Your task to perform on an android device: change keyboard looks Image 0: 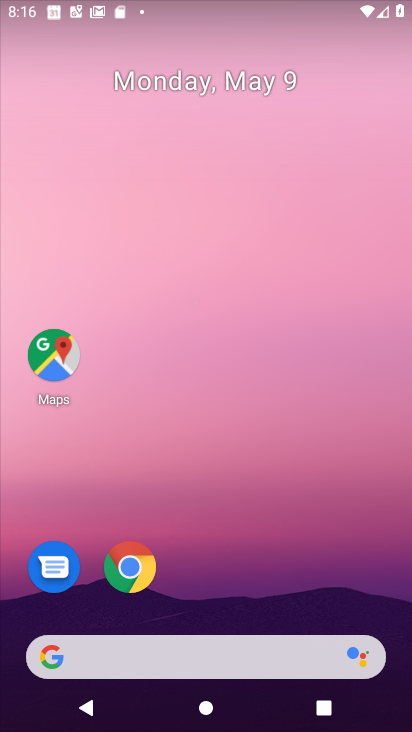
Step 0: click (375, 609)
Your task to perform on an android device: change keyboard looks Image 1: 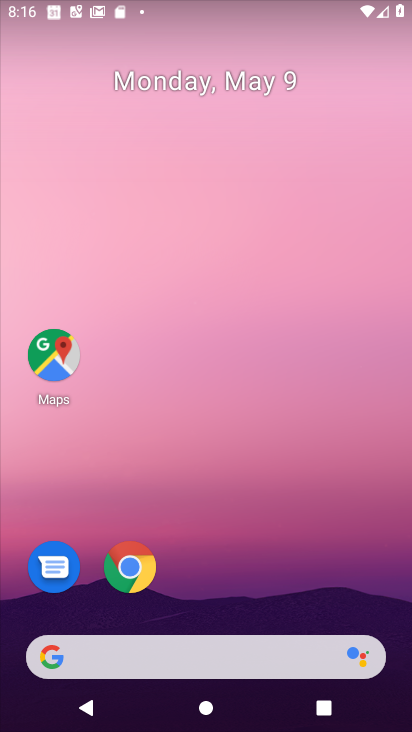
Step 1: drag from (238, 383) to (286, 183)
Your task to perform on an android device: change keyboard looks Image 2: 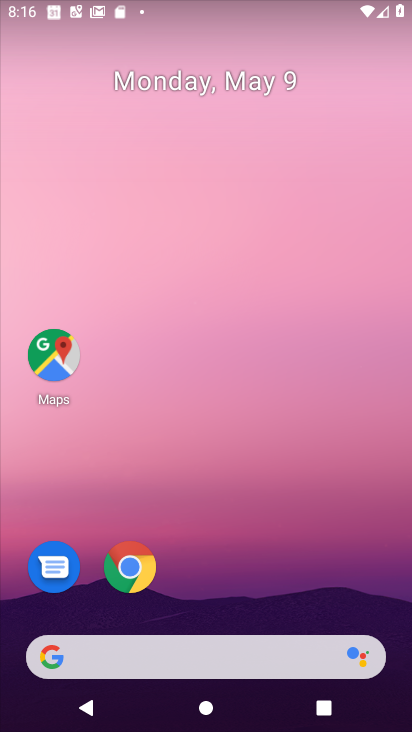
Step 2: click (399, 164)
Your task to perform on an android device: change keyboard looks Image 3: 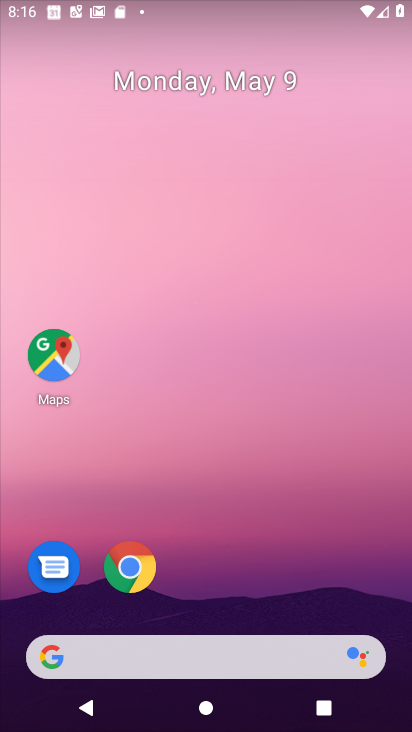
Step 3: drag from (217, 515) to (320, 116)
Your task to perform on an android device: change keyboard looks Image 4: 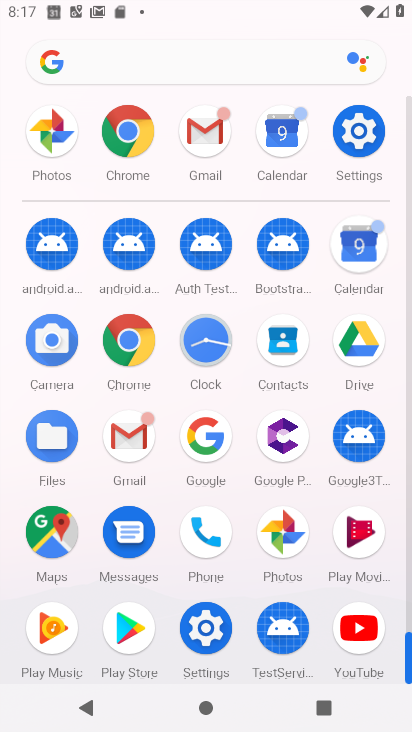
Step 4: drag from (210, 528) to (407, 72)
Your task to perform on an android device: change keyboard looks Image 5: 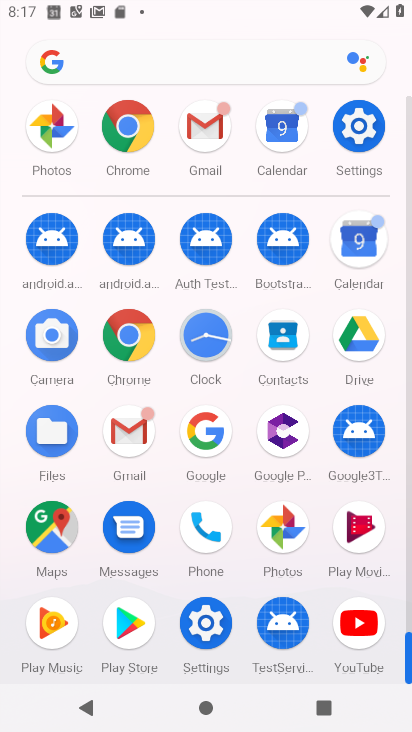
Step 5: click (222, 618)
Your task to perform on an android device: change keyboard looks Image 6: 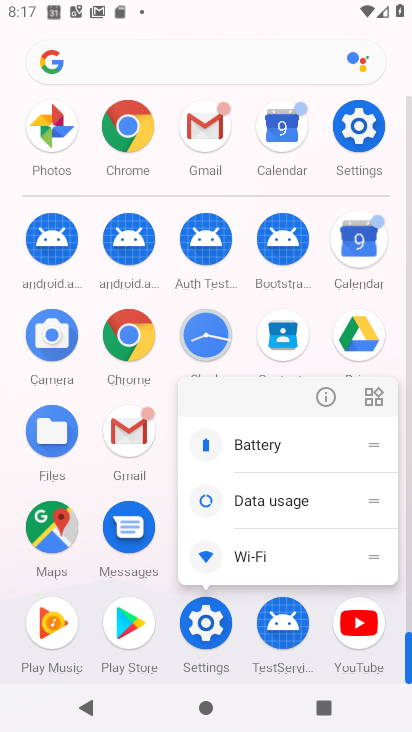
Step 6: click (323, 409)
Your task to perform on an android device: change keyboard looks Image 7: 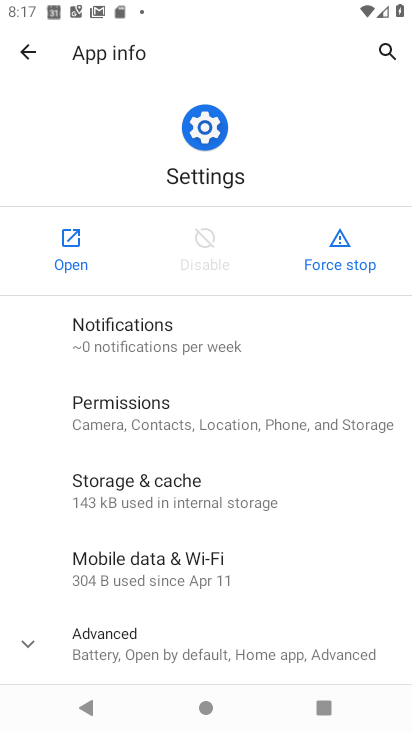
Step 7: click (80, 243)
Your task to perform on an android device: change keyboard looks Image 8: 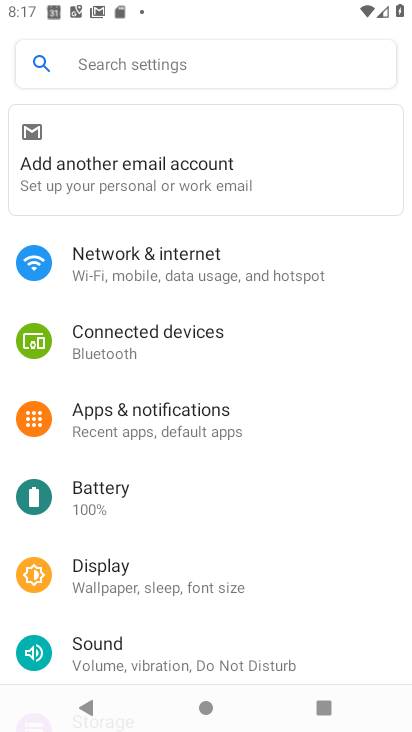
Step 8: drag from (171, 610) to (365, 1)
Your task to perform on an android device: change keyboard looks Image 9: 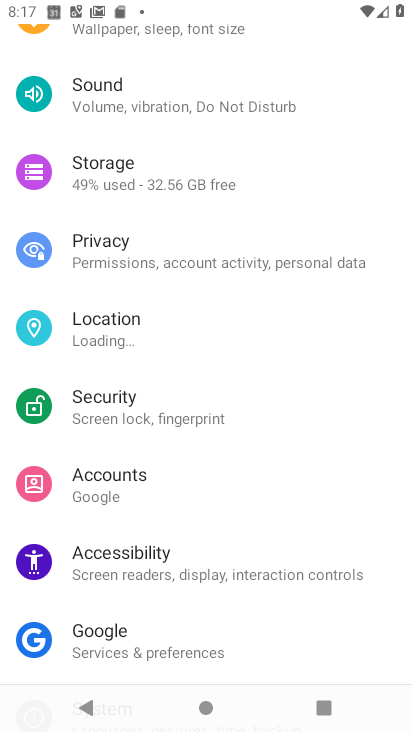
Step 9: drag from (140, 565) to (308, 48)
Your task to perform on an android device: change keyboard looks Image 10: 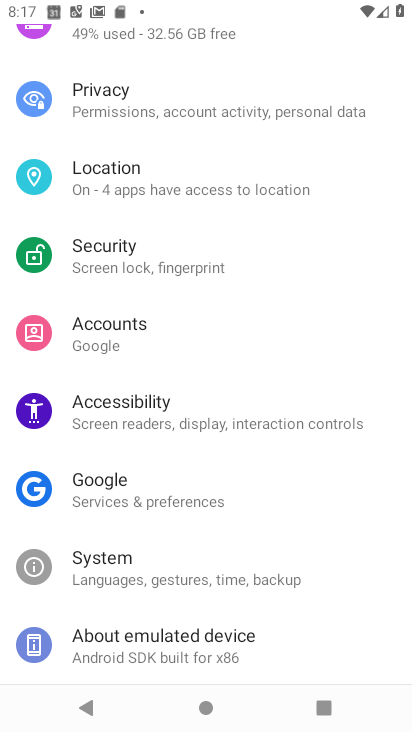
Step 10: click (125, 561)
Your task to perform on an android device: change keyboard looks Image 11: 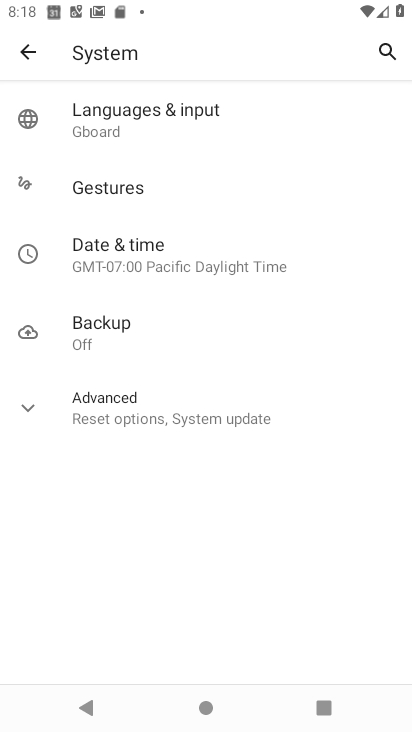
Step 11: click (179, 127)
Your task to perform on an android device: change keyboard looks Image 12: 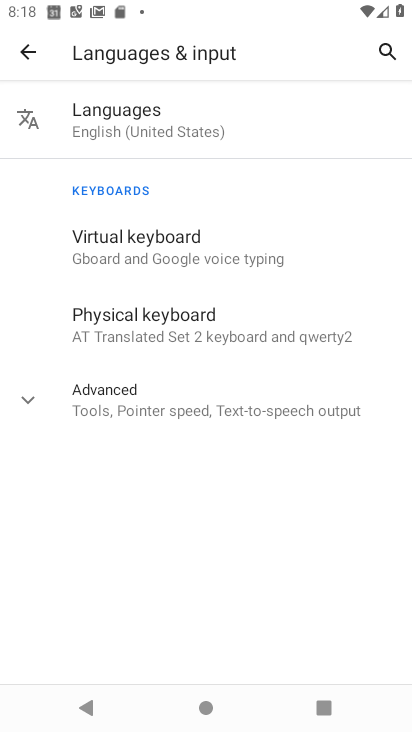
Step 12: click (182, 238)
Your task to perform on an android device: change keyboard looks Image 13: 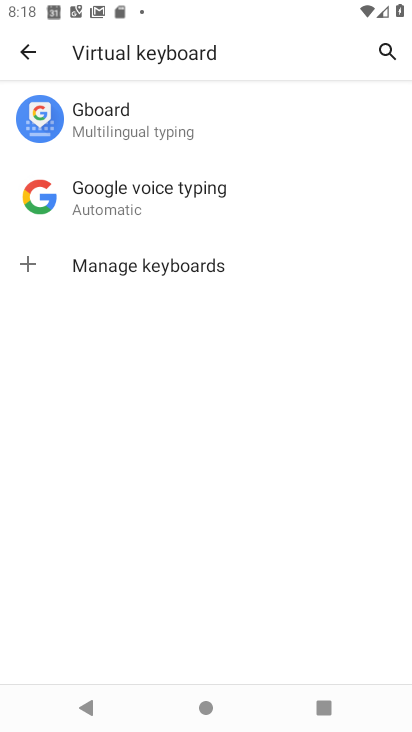
Step 13: click (153, 144)
Your task to perform on an android device: change keyboard looks Image 14: 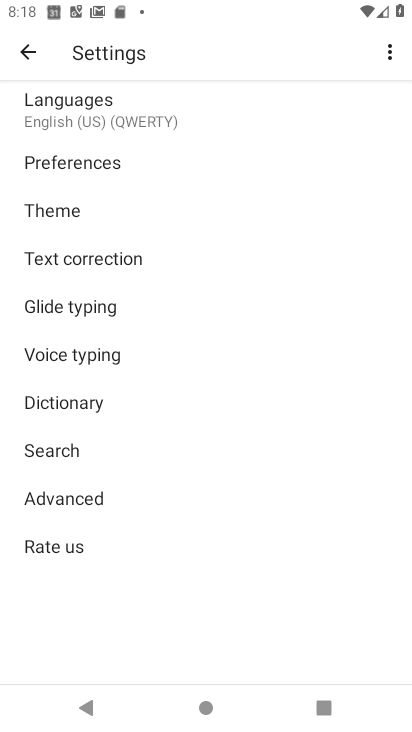
Step 14: click (108, 210)
Your task to perform on an android device: change keyboard looks Image 15: 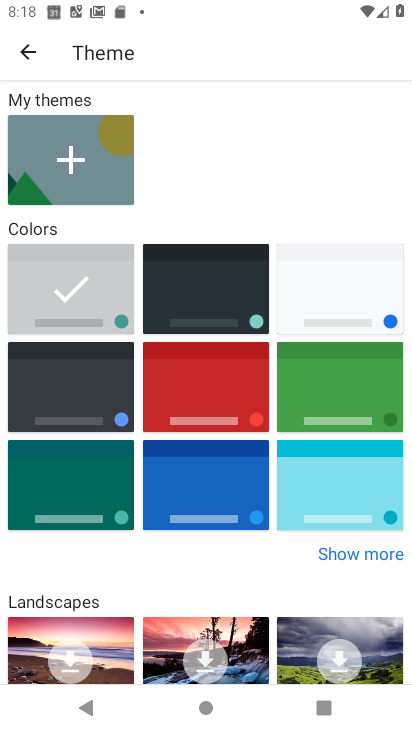
Step 15: click (255, 273)
Your task to perform on an android device: change keyboard looks Image 16: 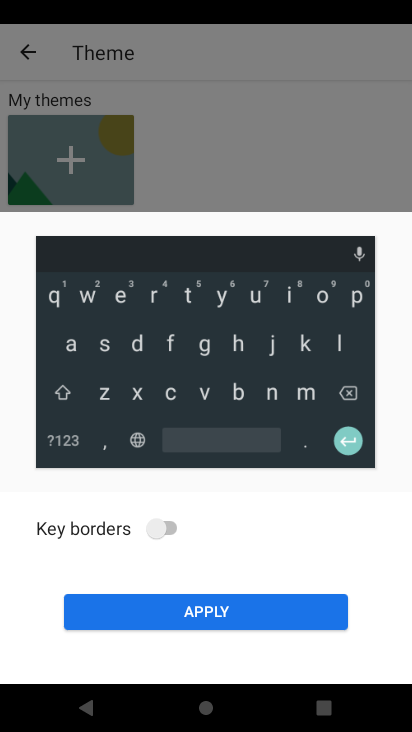
Step 16: click (224, 612)
Your task to perform on an android device: change keyboard looks Image 17: 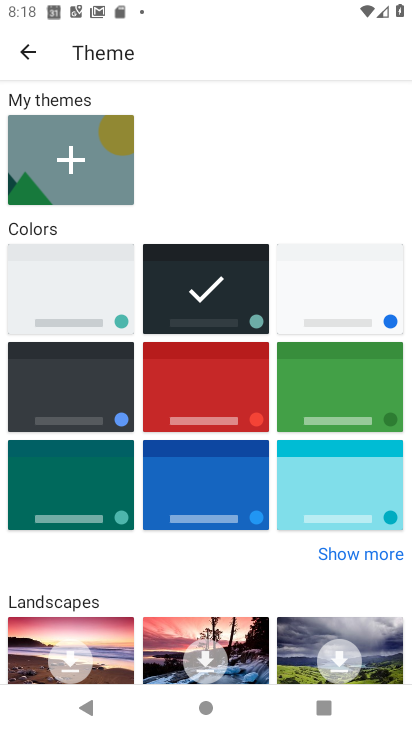
Step 17: task complete